Your task to perform on an android device: What's the weather? Image 0: 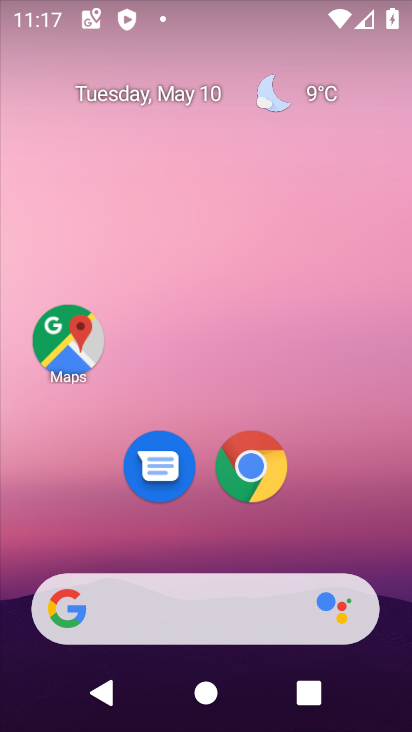
Step 0: drag from (303, 544) to (333, 71)
Your task to perform on an android device: What's the weather? Image 1: 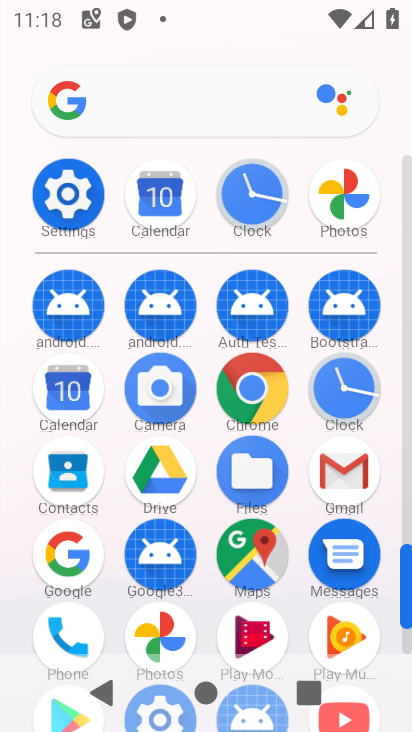
Step 1: click (119, 96)
Your task to perform on an android device: What's the weather? Image 2: 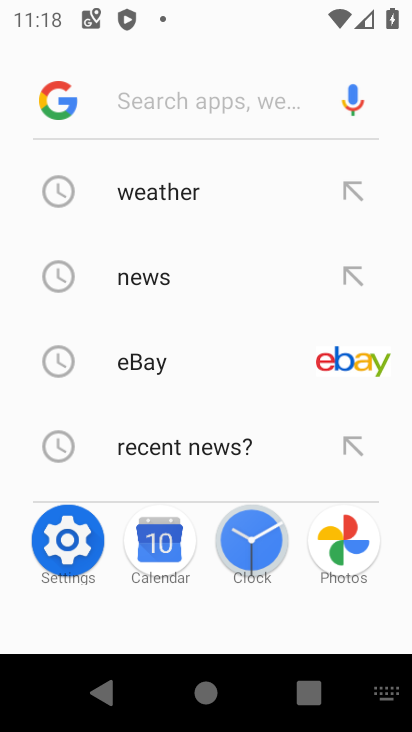
Step 2: type "what's the weather"
Your task to perform on an android device: What's the weather? Image 3: 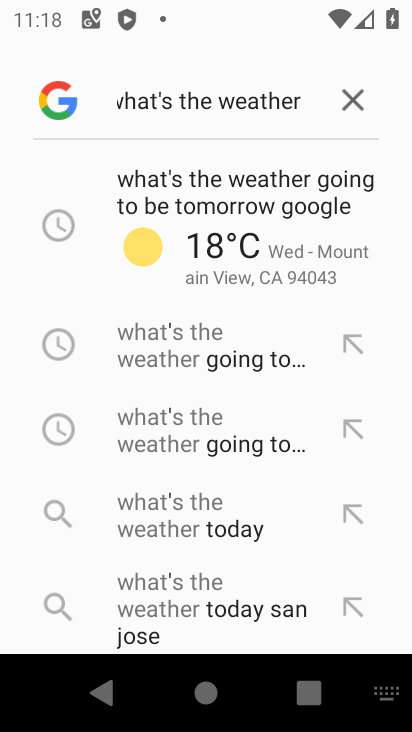
Step 3: drag from (208, 545) to (212, 294)
Your task to perform on an android device: What's the weather? Image 4: 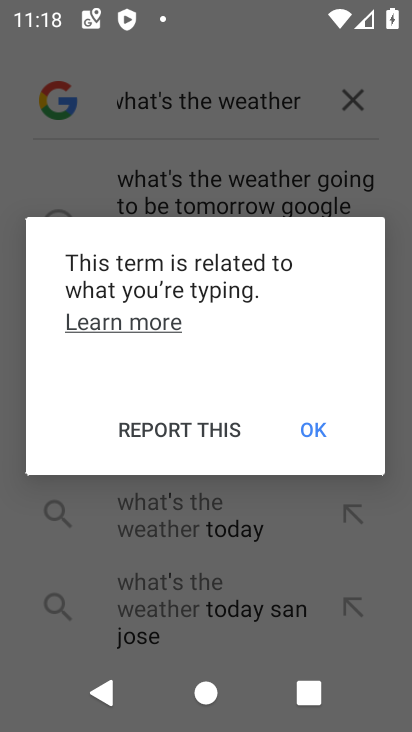
Step 4: press back button
Your task to perform on an android device: What's the weather? Image 5: 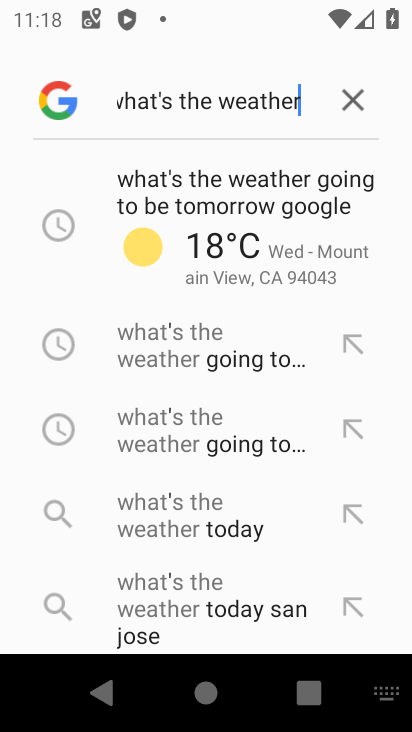
Step 5: click (205, 510)
Your task to perform on an android device: What's the weather? Image 6: 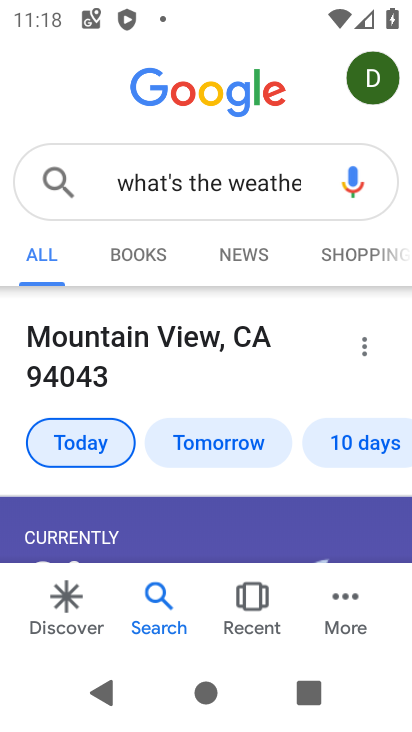
Step 6: task complete